Your task to perform on an android device: read, delete, or share a saved page in the chrome app Image 0: 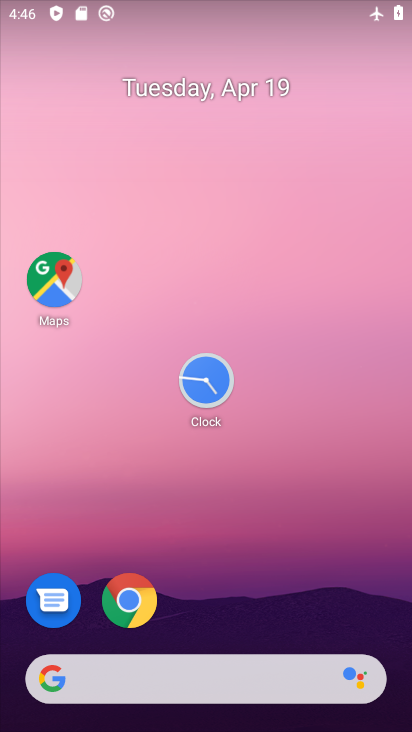
Step 0: drag from (331, 640) to (228, 78)
Your task to perform on an android device: read, delete, or share a saved page in the chrome app Image 1: 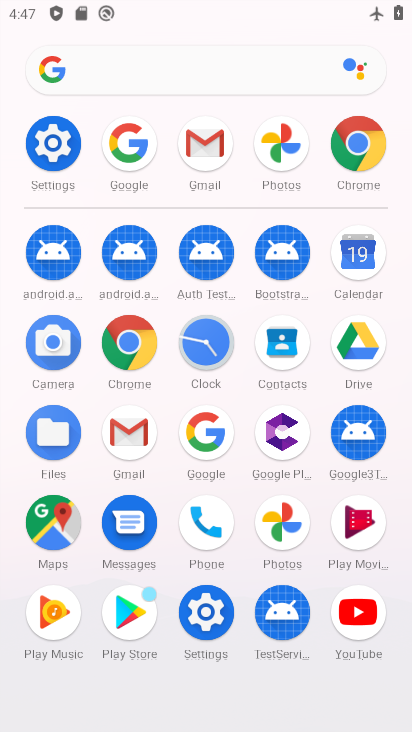
Step 1: click (359, 132)
Your task to perform on an android device: read, delete, or share a saved page in the chrome app Image 2: 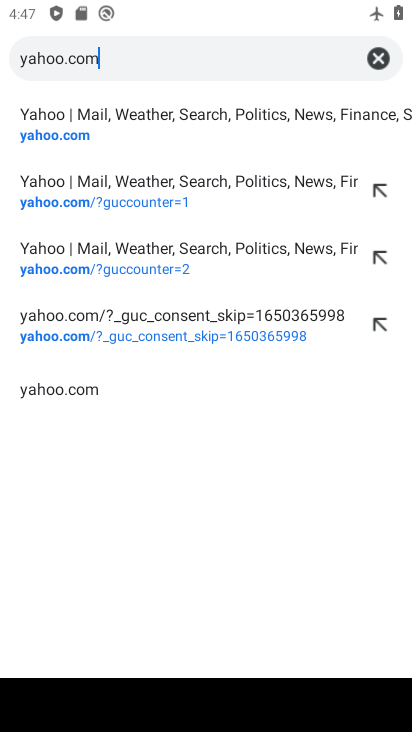
Step 2: click (379, 56)
Your task to perform on an android device: read, delete, or share a saved page in the chrome app Image 3: 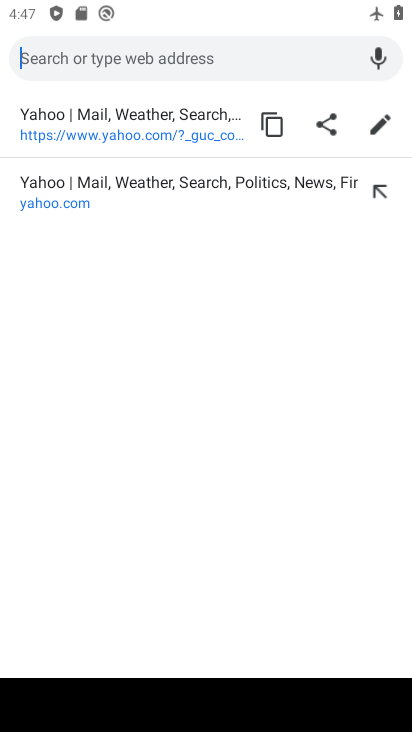
Step 3: press home button
Your task to perform on an android device: read, delete, or share a saved page in the chrome app Image 4: 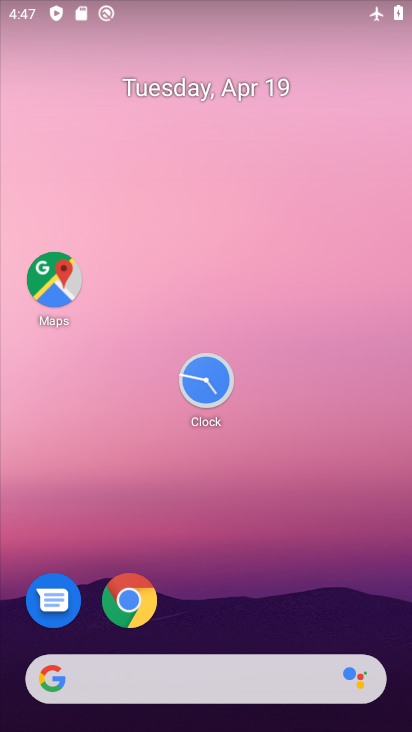
Step 4: drag from (192, 450) to (45, 95)
Your task to perform on an android device: read, delete, or share a saved page in the chrome app Image 5: 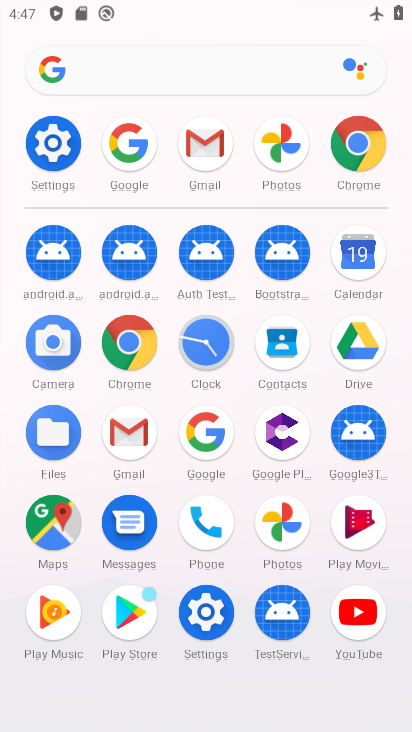
Step 5: click (358, 142)
Your task to perform on an android device: read, delete, or share a saved page in the chrome app Image 6: 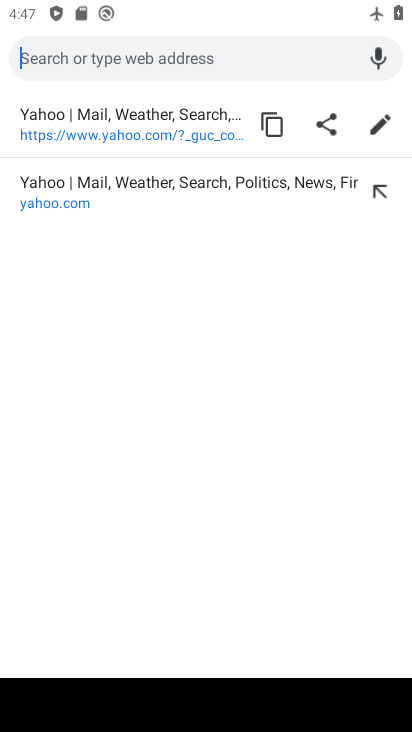
Step 6: press back button
Your task to perform on an android device: read, delete, or share a saved page in the chrome app Image 7: 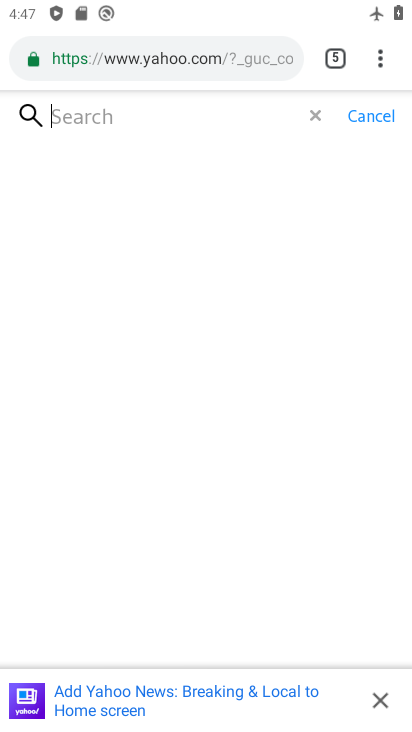
Step 7: click (375, 57)
Your task to perform on an android device: read, delete, or share a saved page in the chrome app Image 8: 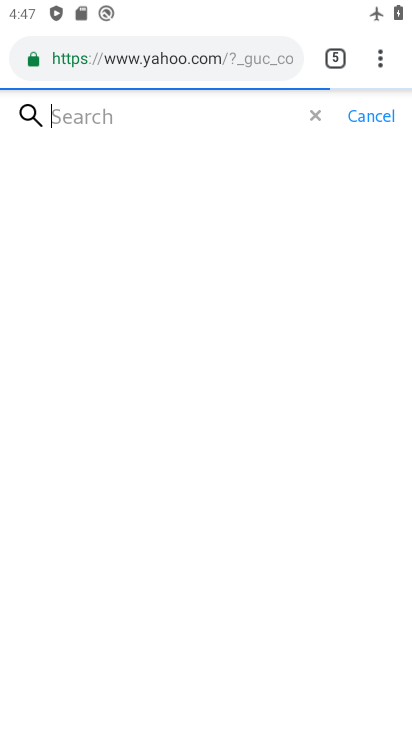
Step 8: click (375, 57)
Your task to perform on an android device: read, delete, or share a saved page in the chrome app Image 9: 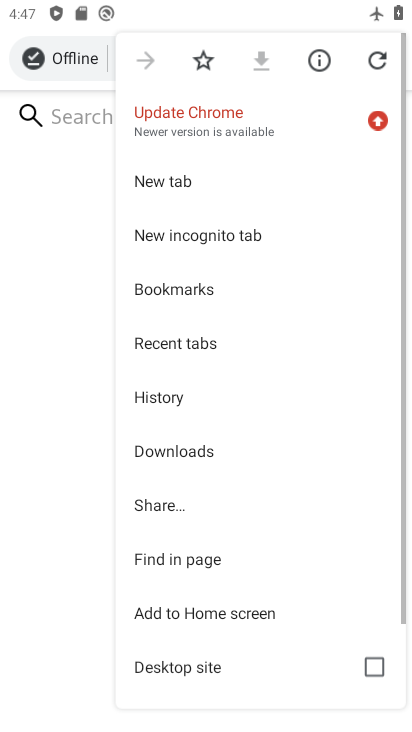
Step 9: click (375, 57)
Your task to perform on an android device: read, delete, or share a saved page in the chrome app Image 10: 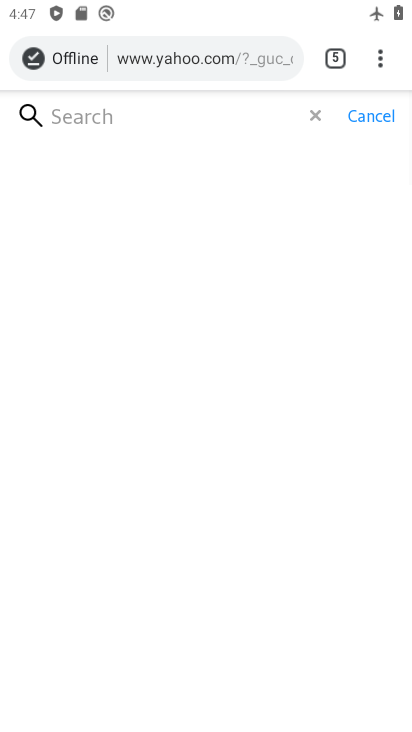
Step 10: click (375, 58)
Your task to perform on an android device: read, delete, or share a saved page in the chrome app Image 11: 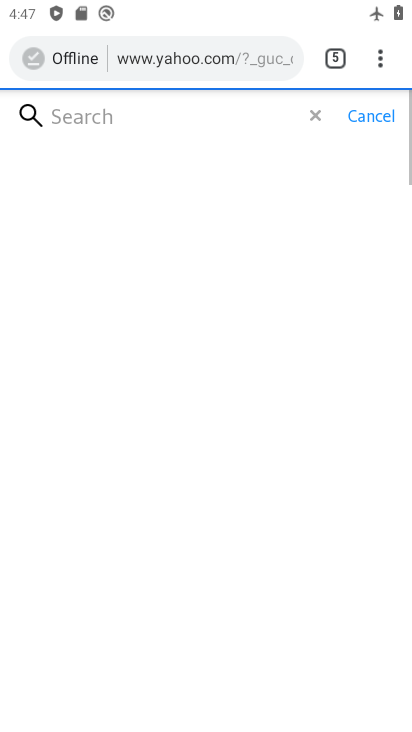
Step 11: click (375, 58)
Your task to perform on an android device: read, delete, or share a saved page in the chrome app Image 12: 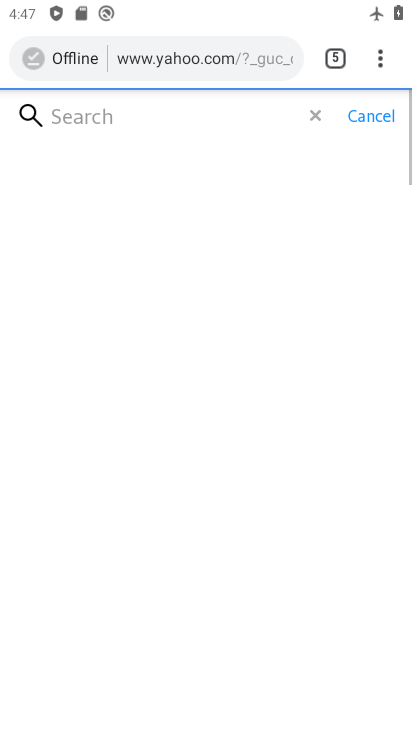
Step 12: click (375, 58)
Your task to perform on an android device: read, delete, or share a saved page in the chrome app Image 13: 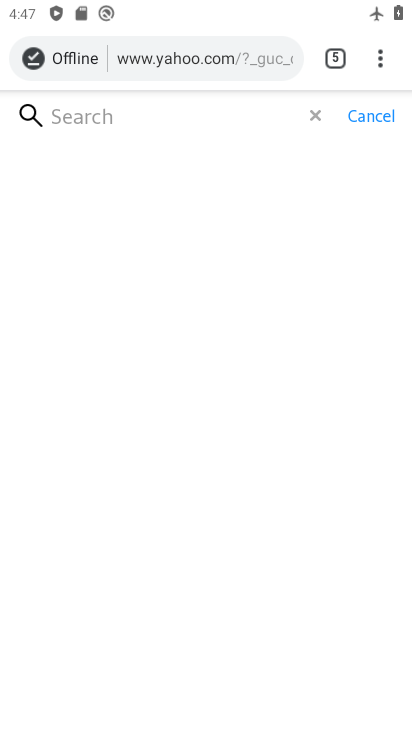
Step 13: click (377, 40)
Your task to perform on an android device: read, delete, or share a saved page in the chrome app Image 14: 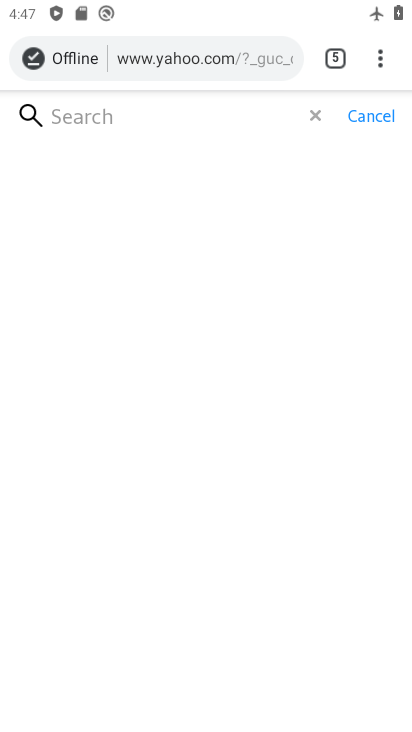
Step 14: click (380, 52)
Your task to perform on an android device: read, delete, or share a saved page in the chrome app Image 15: 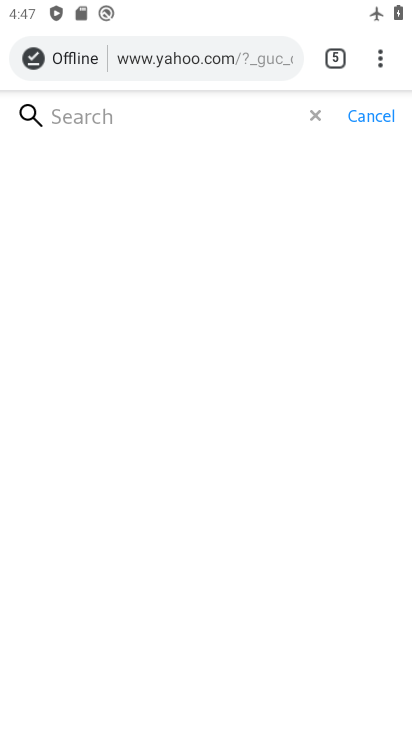
Step 15: click (383, 54)
Your task to perform on an android device: read, delete, or share a saved page in the chrome app Image 16: 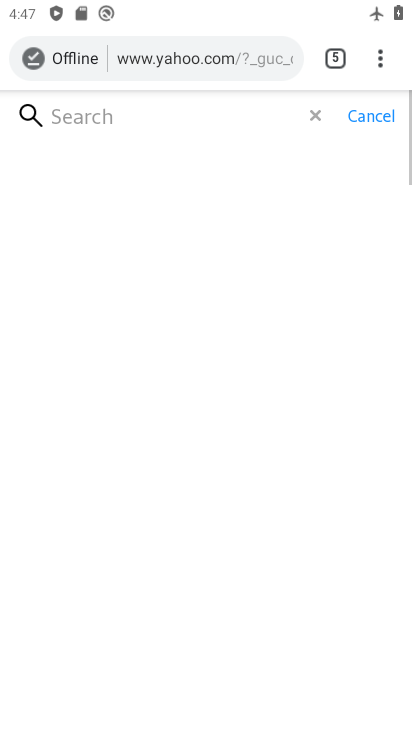
Step 16: click (383, 54)
Your task to perform on an android device: read, delete, or share a saved page in the chrome app Image 17: 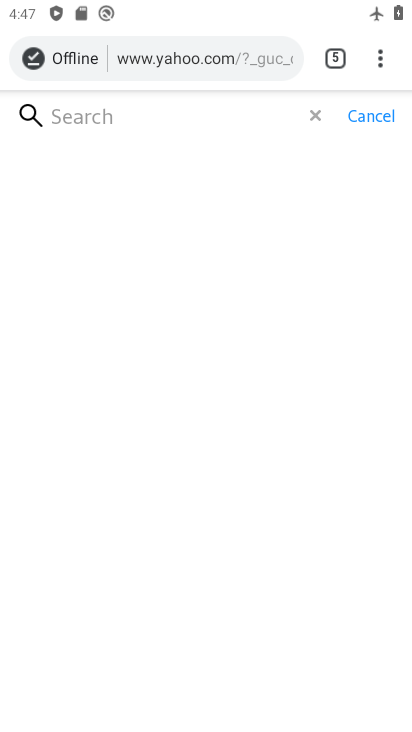
Step 17: click (373, 51)
Your task to perform on an android device: read, delete, or share a saved page in the chrome app Image 18: 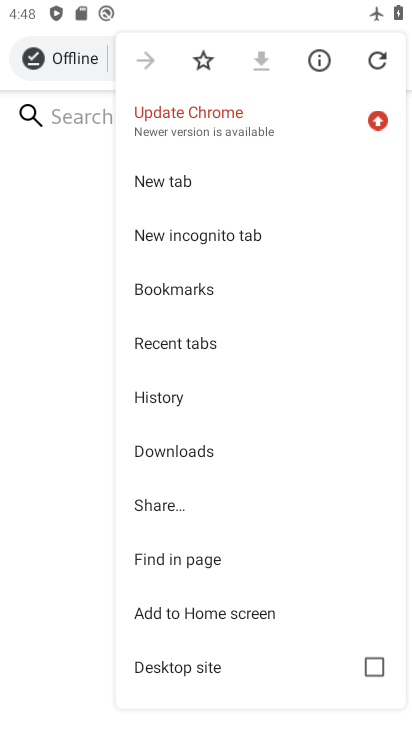
Step 18: click (167, 449)
Your task to perform on an android device: read, delete, or share a saved page in the chrome app Image 19: 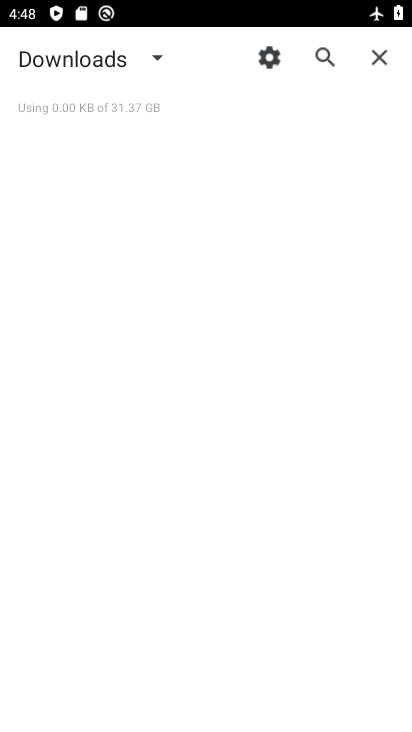
Step 19: click (152, 51)
Your task to perform on an android device: read, delete, or share a saved page in the chrome app Image 20: 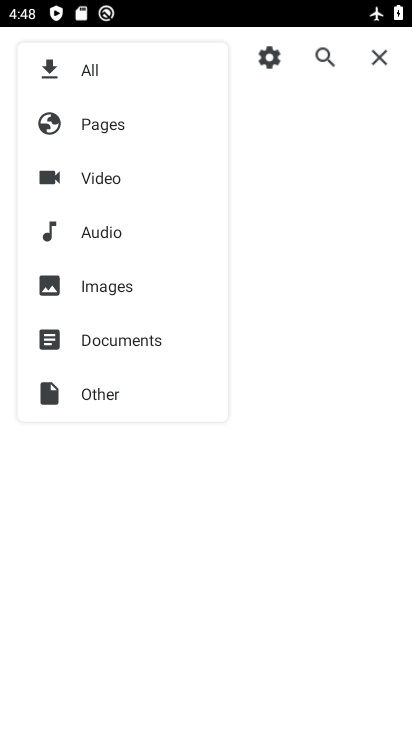
Step 20: click (114, 129)
Your task to perform on an android device: read, delete, or share a saved page in the chrome app Image 21: 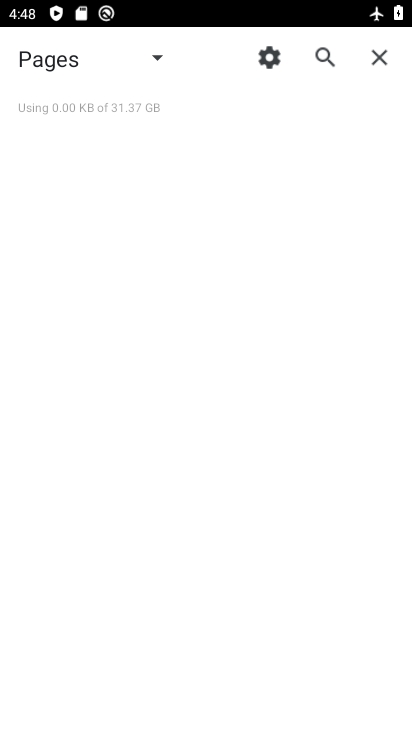
Step 21: task complete